Your task to perform on an android device: What's the weather today? Image 0: 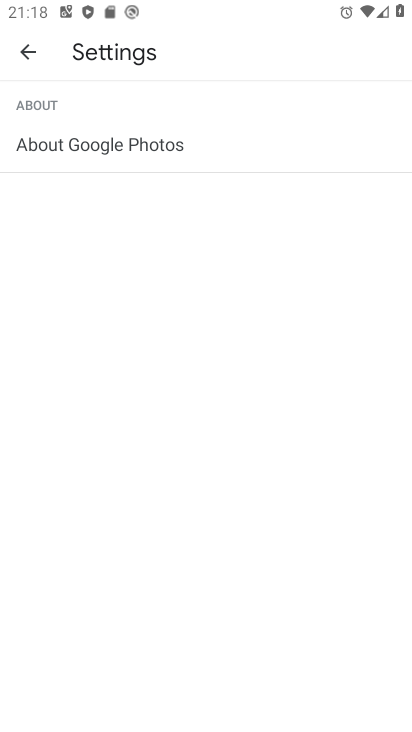
Step 0: press home button
Your task to perform on an android device: What's the weather today? Image 1: 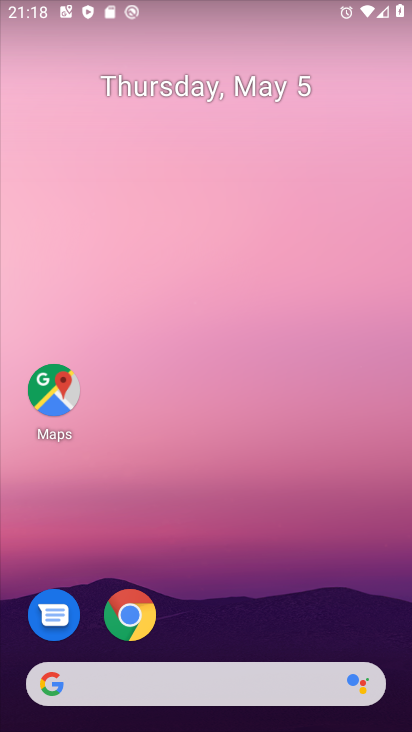
Step 1: click (225, 689)
Your task to perform on an android device: What's the weather today? Image 2: 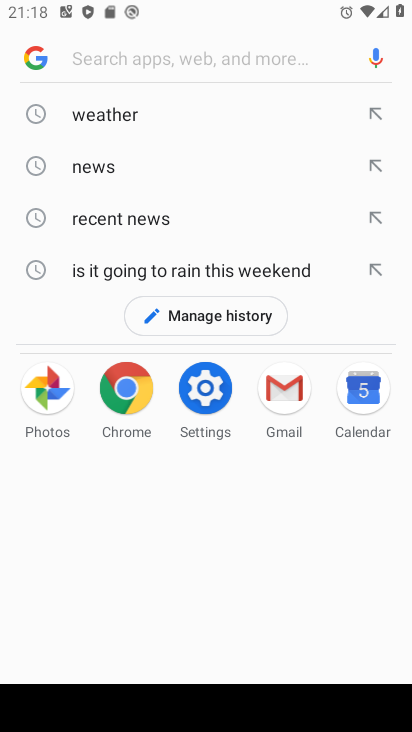
Step 2: click (107, 112)
Your task to perform on an android device: What's the weather today? Image 3: 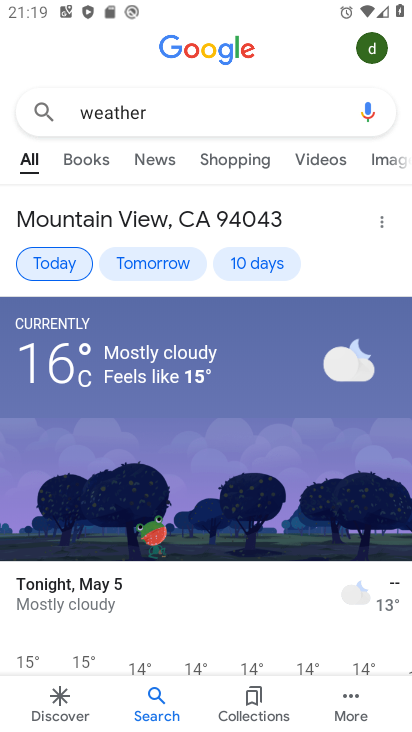
Step 3: task complete